Your task to perform on an android device: check storage Image 0: 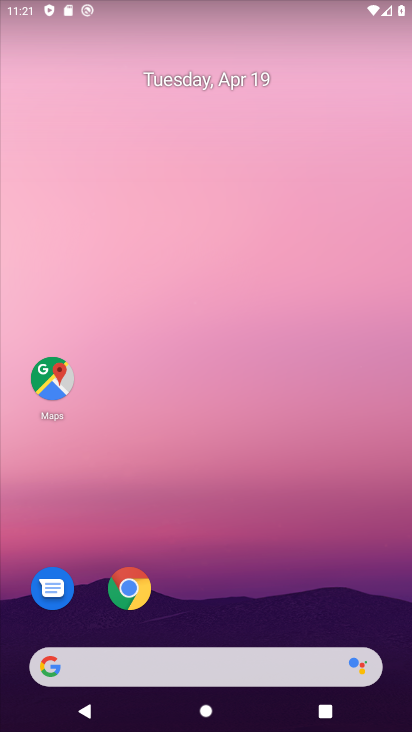
Step 0: press home button
Your task to perform on an android device: check storage Image 1: 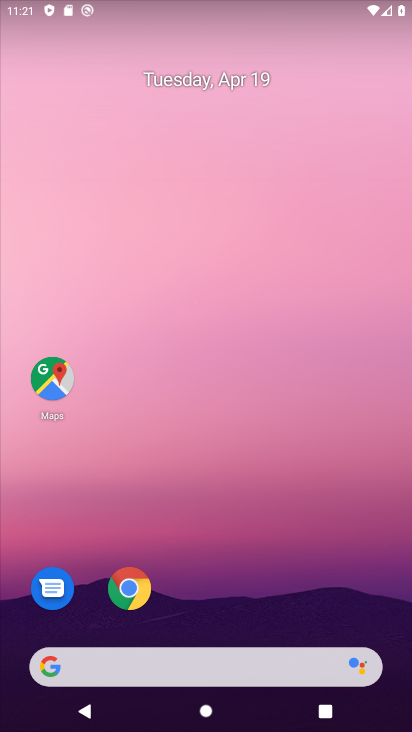
Step 1: drag from (202, 583) to (198, 36)
Your task to perform on an android device: check storage Image 2: 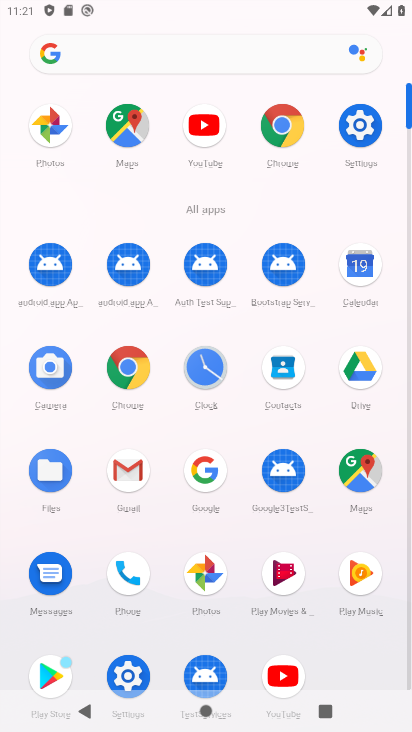
Step 2: click (360, 124)
Your task to perform on an android device: check storage Image 3: 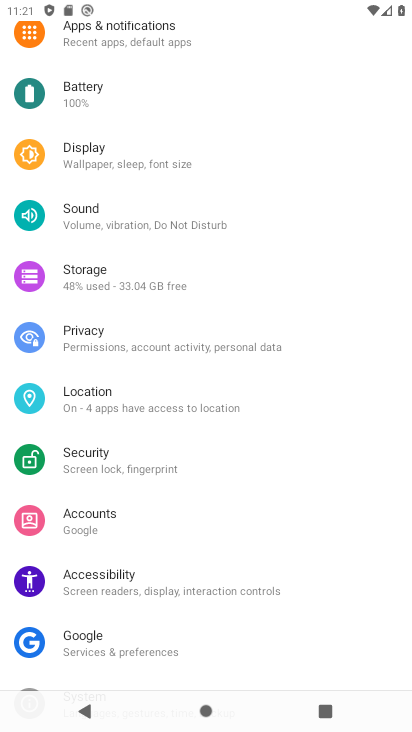
Step 3: click (115, 272)
Your task to perform on an android device: check storage Image 4: 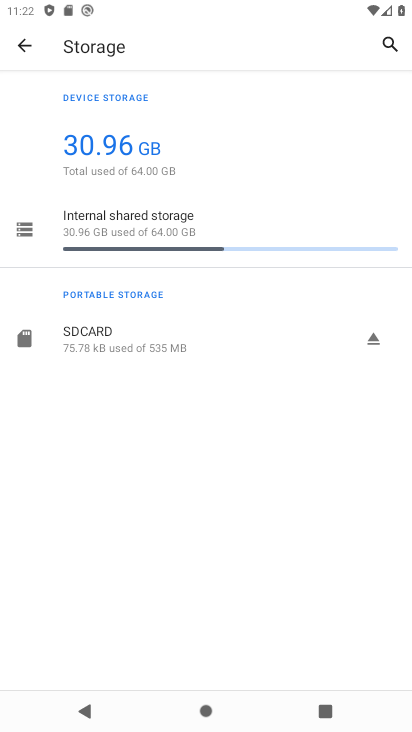
Step 4: task complete